Your task to perform on an android device: turn notification dots on Image 0: 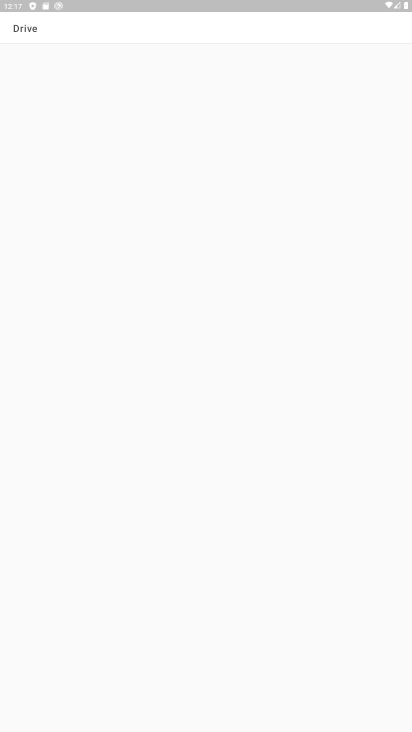
Step 0: press home button
Your task to perform on an android device: turn notification dots on Image 1: 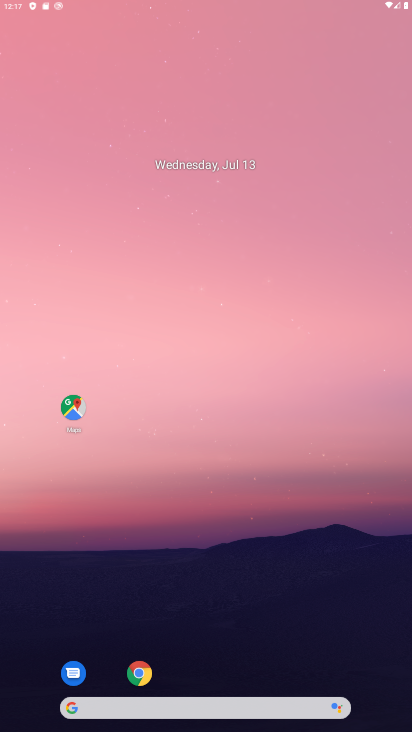
Step 1: drag from (207, 658) to (303, 177)
Your task to perform on an android device: turn notification dots on Image 2: 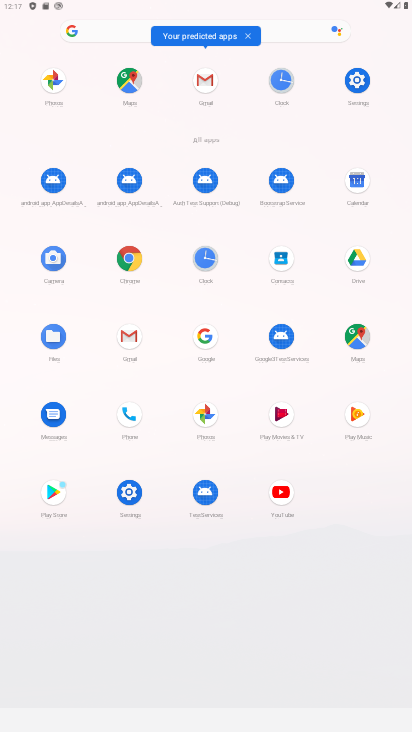
Step 2: click (127, 501)
Your task to perform on an android device: turn notification dots on Image 3: 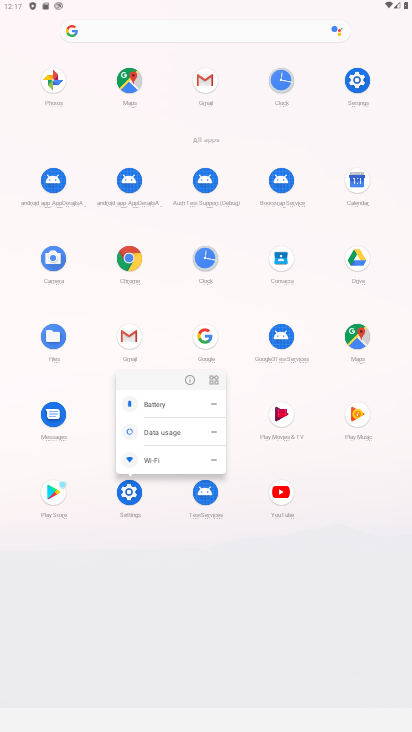
Step 3: click (184, 377)
Your task to perform on an android device: turn notification dots on Image 4: 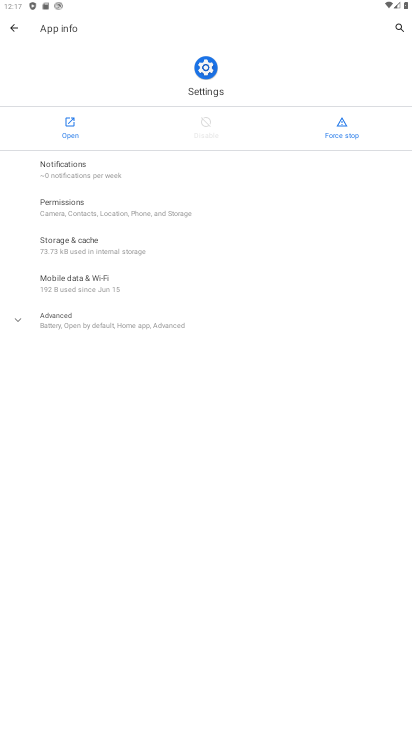
Step 4: click (71, 122)
Your task to perform on an android device: turn notification dots on Image 5: 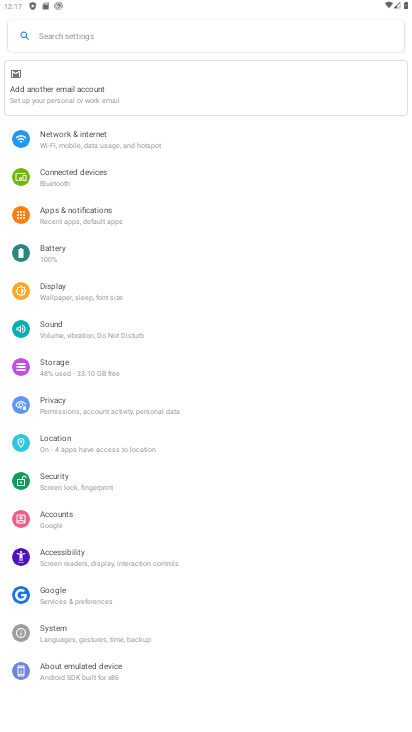
Step 5: click (92, 210)
Your task to perform on an android device: turn notification dots on Image 6: 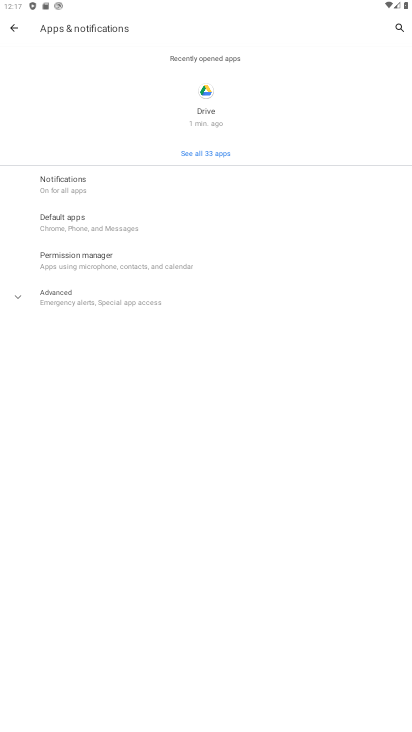
Step 6: click (102, 187)
Your task to perform on an android device: turn notification dots on Image 7: 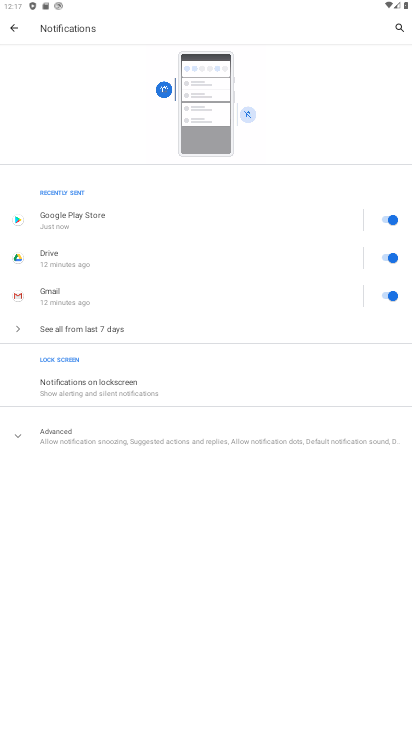
Step 7: click (86, 441)
Your task to perform on an android device: turn notification dots on Image 8: 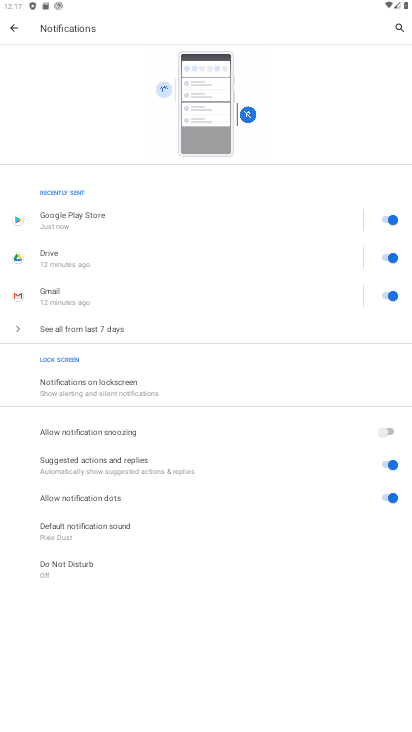
Step 8: drag from (200, 644) to (254, 411)
Your task to perform on an android device: turn notification dots on Image 9: 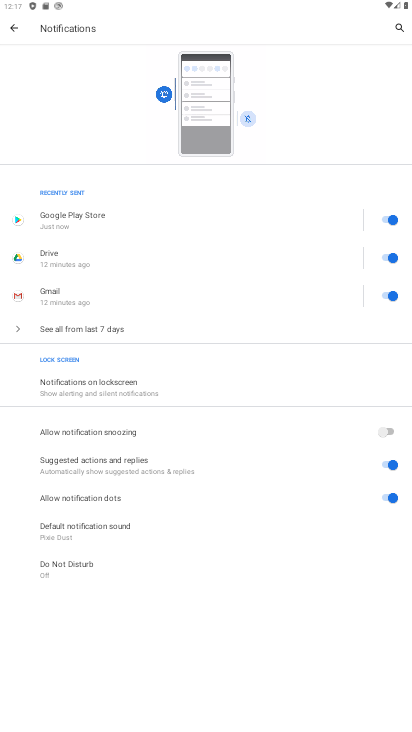
Step 9: click (395, 494)
Your task to perform on an android device: turn notification dots on Image 10: 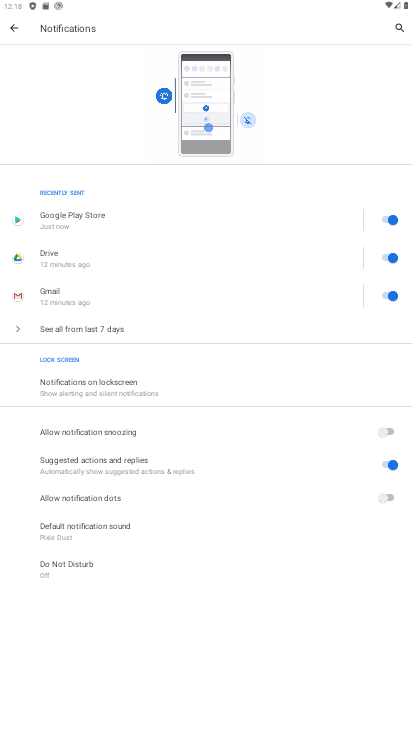
Step 10: click (369, 493)
Your task to perform on an android device: turn notification dots on Image 11: 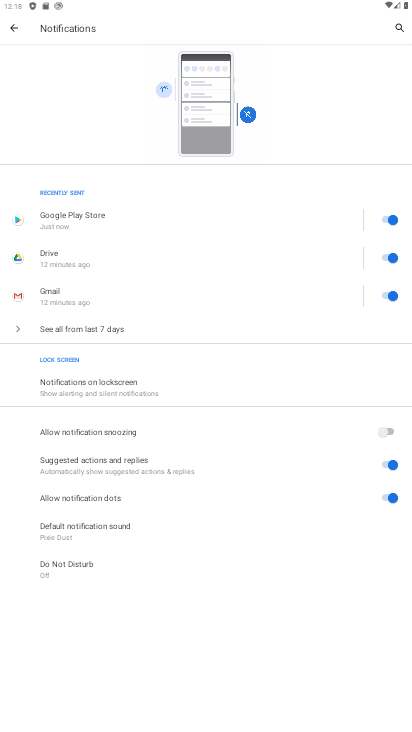
Step 11: task complete